Your task to perform on an android device: What's the weather today? Image 0: 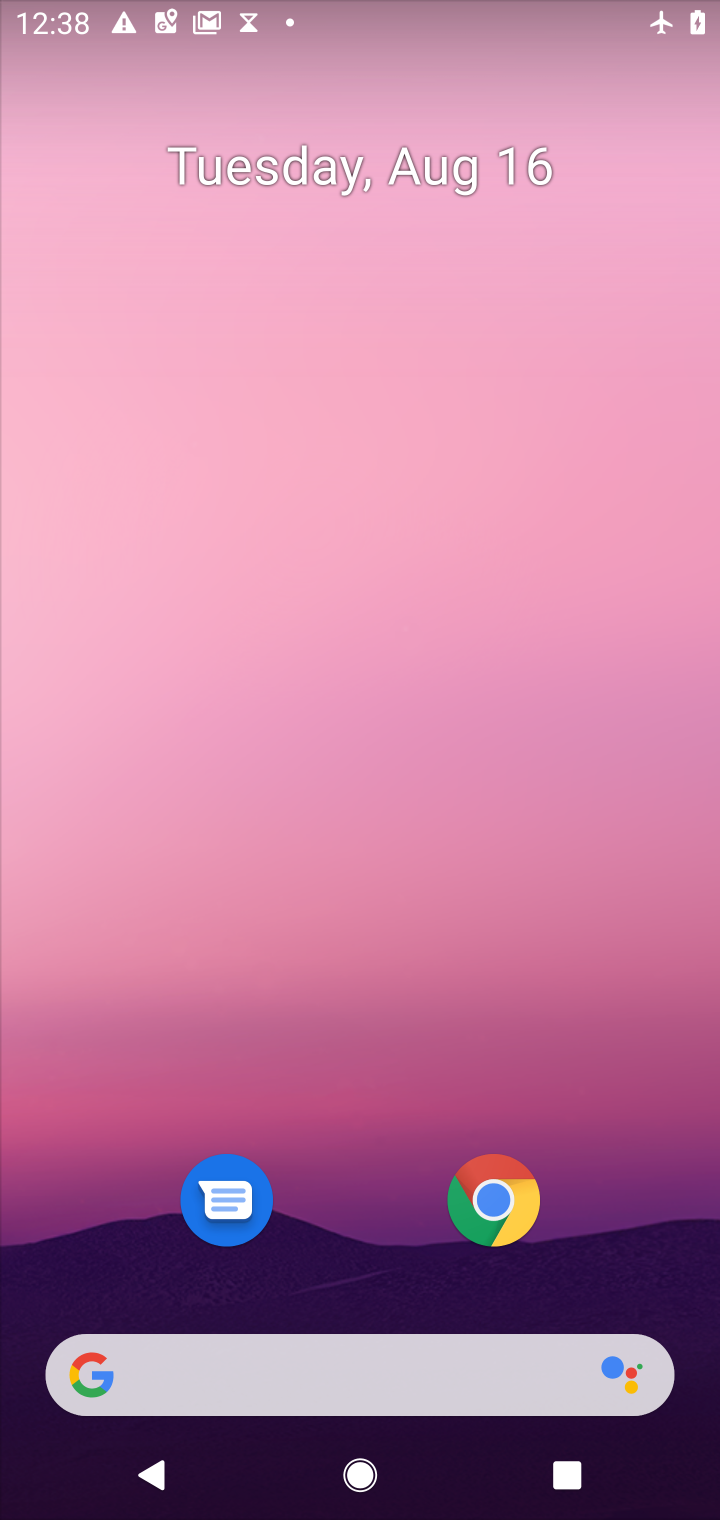
Step 0: drag from (357, 966) to (397, 325)
Your task to perform on an android device: What's the weather today? Image 1: 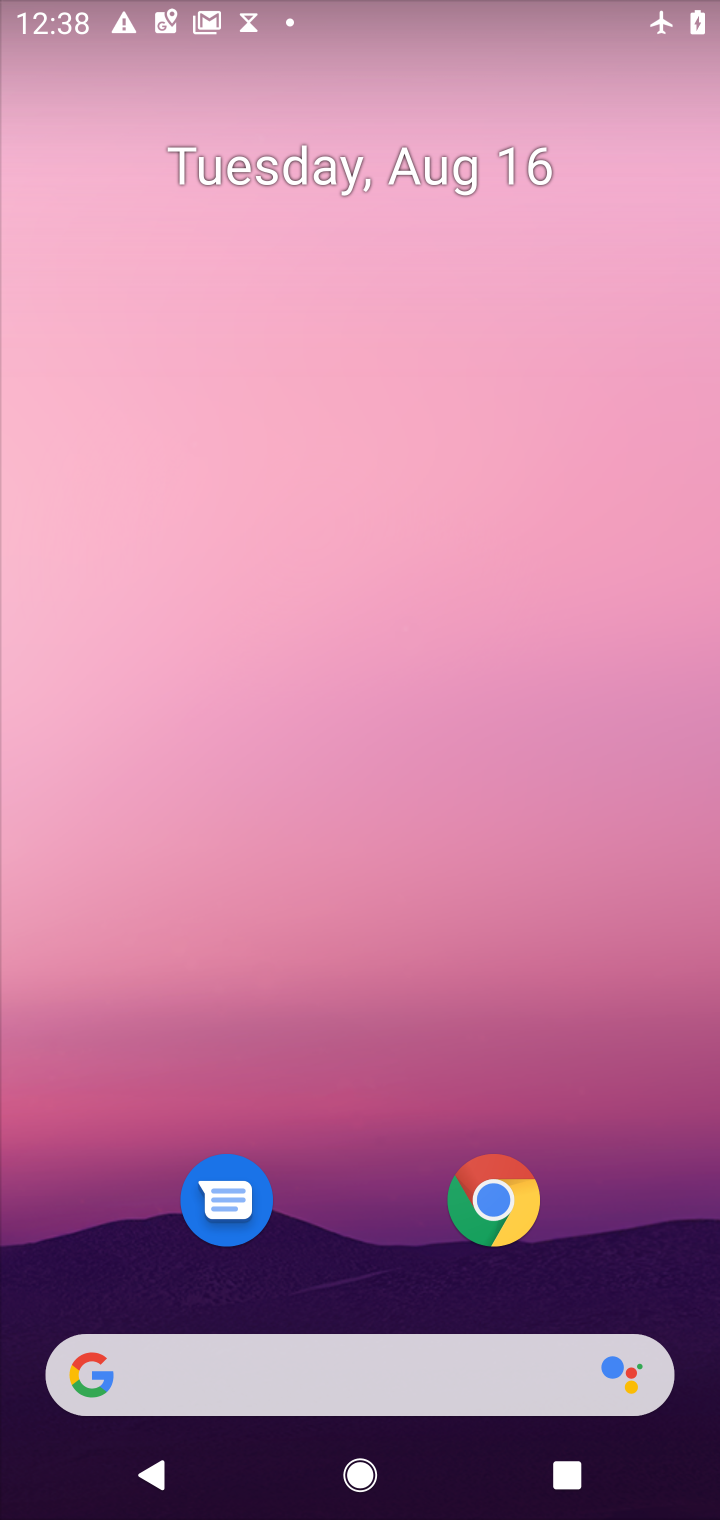
Step 1: drag from (388, 1238) to (388, 153)
Your task to perform on an android device: What's the weather today? Image 2: 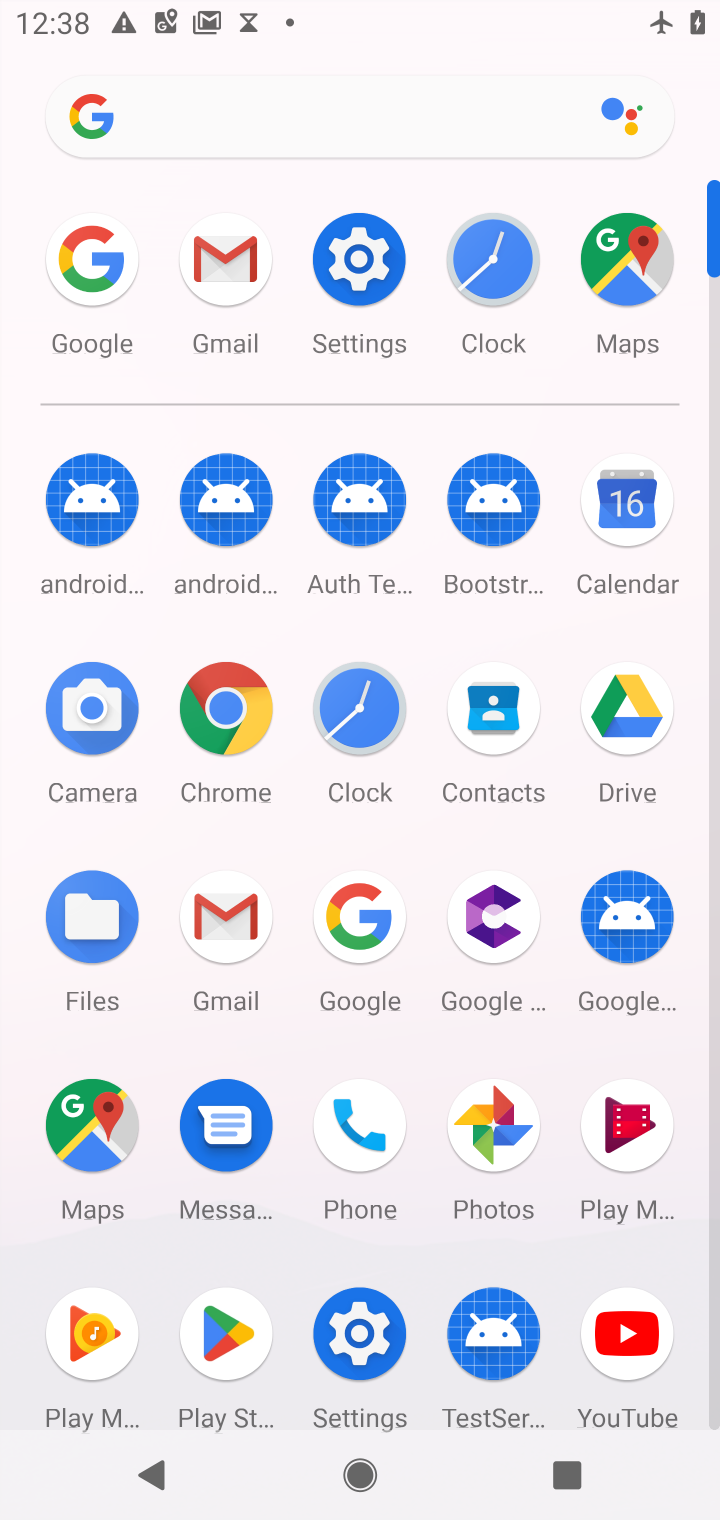
Step 2: click (112, 272)
Your task to perform on an android device: What's the weather today? Image 3: 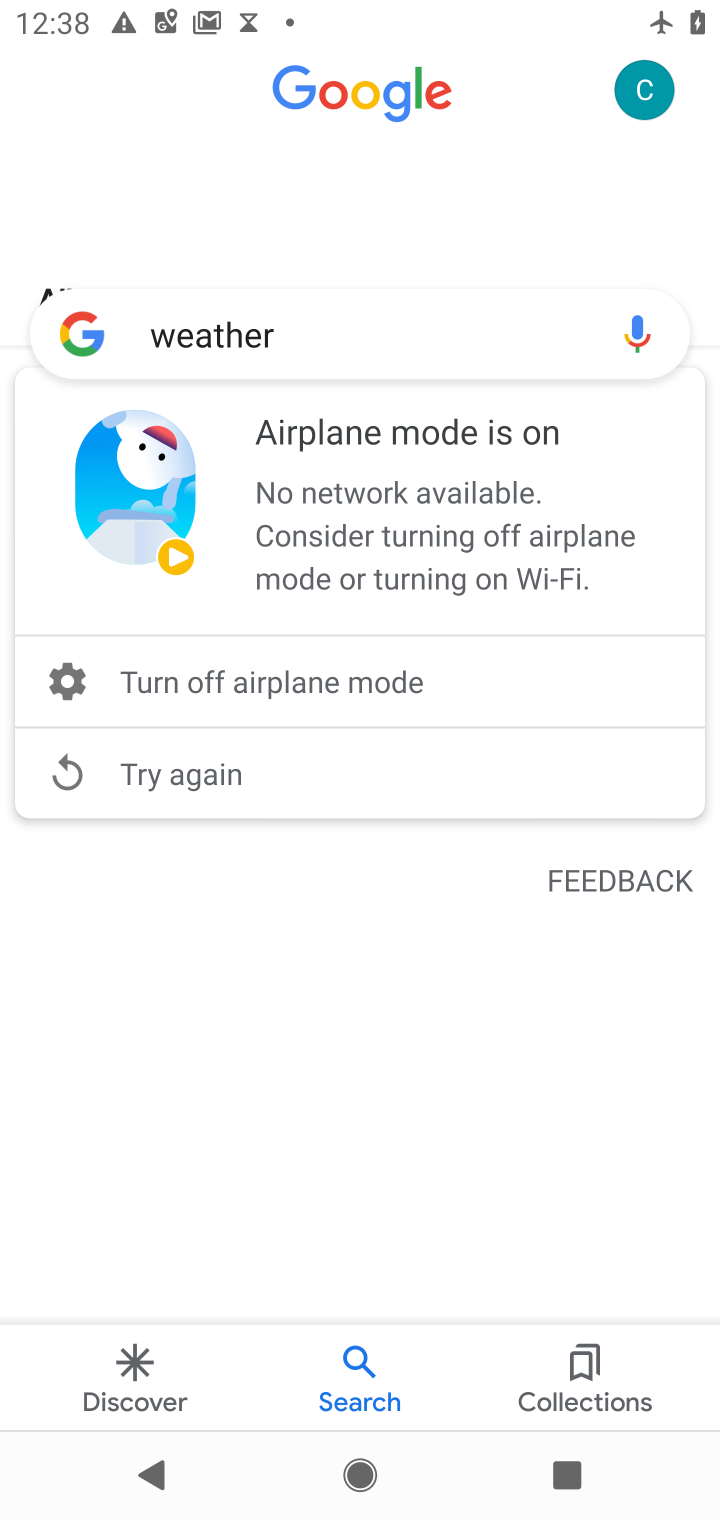
Step 3: task complete